Your task to perform on an android device: turn off wifi Image 0: 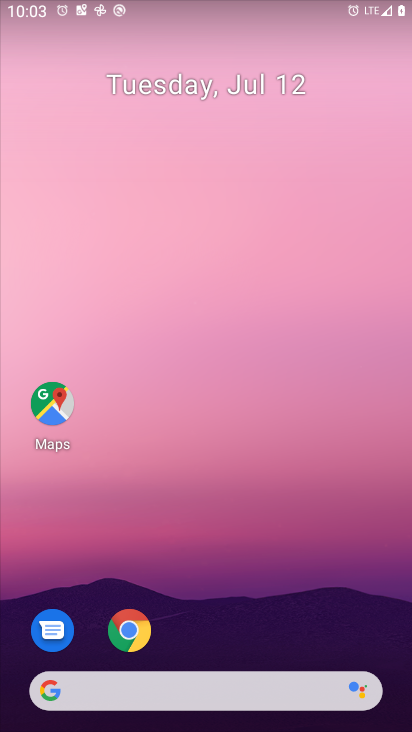
Step 0: drag from (196, 3) to (281, 420)
Your task to perform on an android device: turn off wifi Image 1: 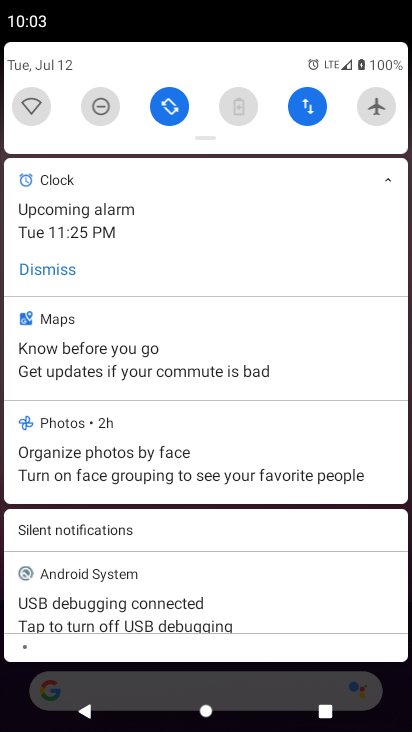
Step 1: task complete